Your task to perform on an android device: Search for seafood restaurants on Google Maps Image 0: 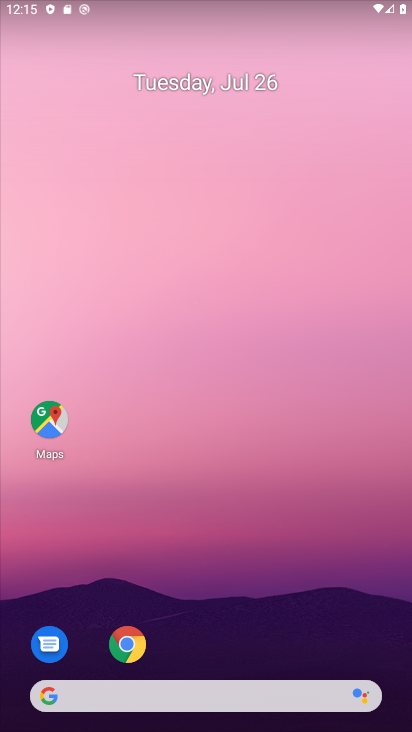
Step 0: drag from (209, 585) to (199, 194)
Your task to perform on an android device: Search for seafood restaurants on Google Maps Image 1: 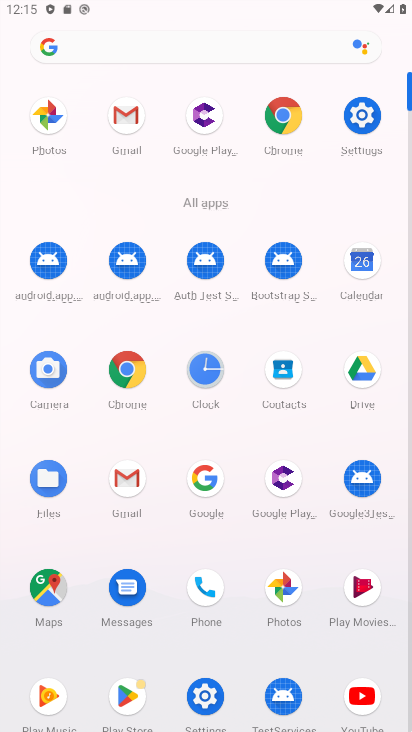
Step 1: click (28, 586)
Your task to perform on an android device: Search for seafood restaurants on Google Maps Image 2: 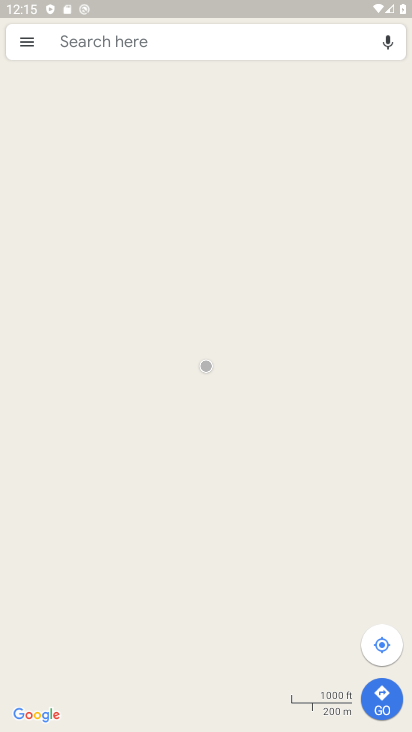
Step 2: click (195, 38)
Your task to perform on an android device: Search for seafood restaurants on Google Maps Image 3: 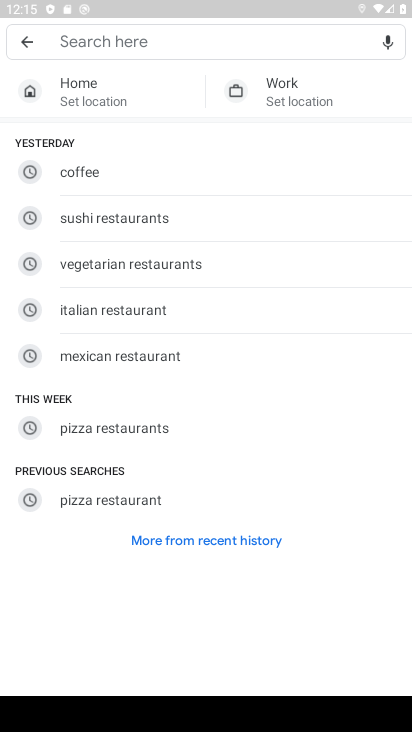
Step 3: click (223, 27)
Your task to perform on an android device: Search for seafood restaurants on Google Maps Image 4: 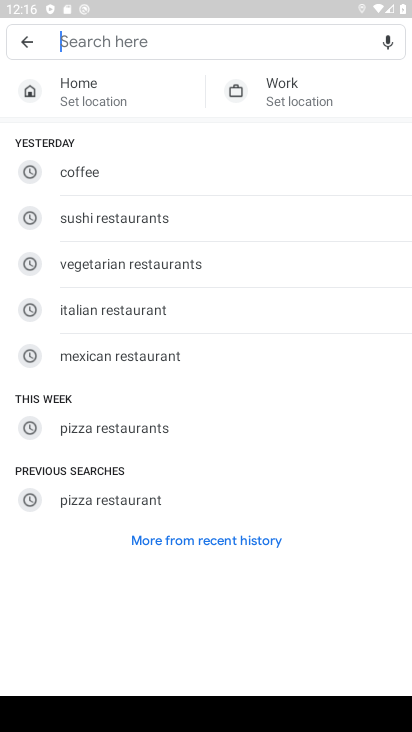
Step 4: type "seafood restaurant "
Your task to perform on an android device: Search for seafood restaurants on Google Maps Image 5: 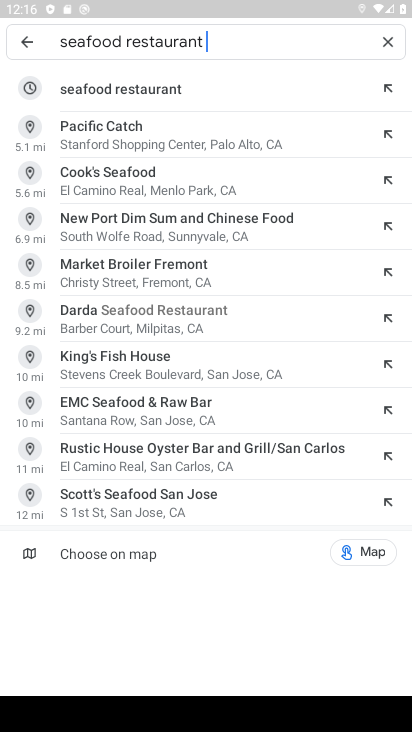
Step 5: click (126, 88)
Your task to perform on an android device: Search for seafood restaurants on Google Maps Image 6: 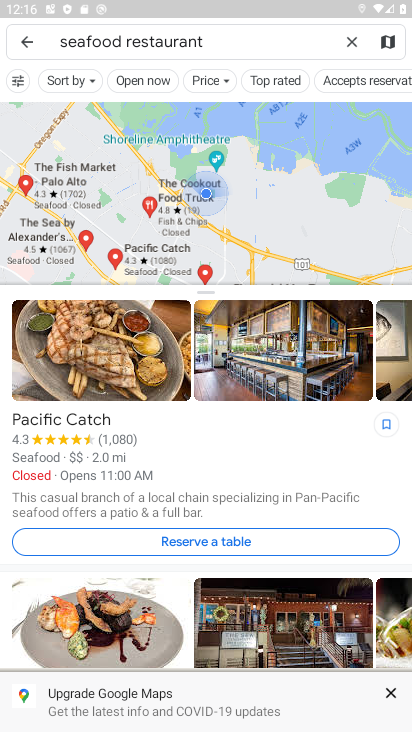
Step 6: task complete